Your task to perform on an android device: empty trash in google photos Image 0: 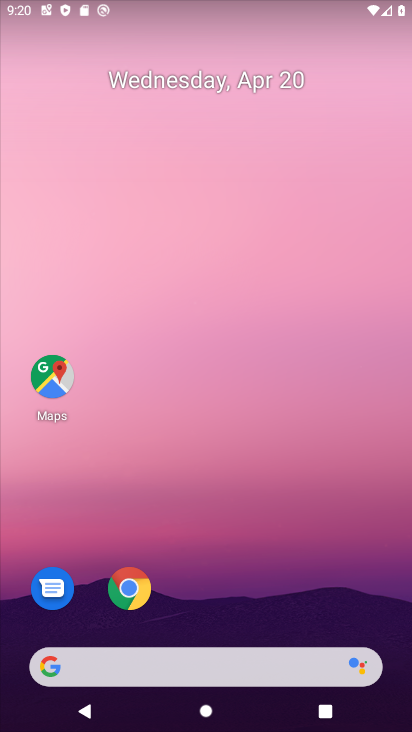
Step 0: drag from (219, 527) to (128, 198)
Your task to perform on an android device: empty trash in google photos Image 1: 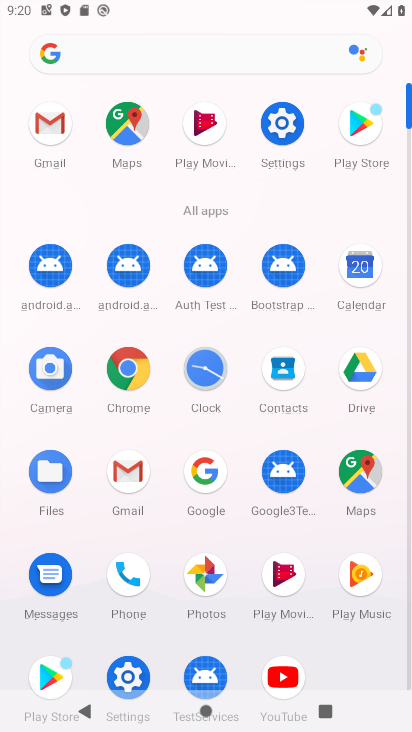
Step 1: click (207, 579)
Your task to perform on an android device: empty trash in google photos Image 2: 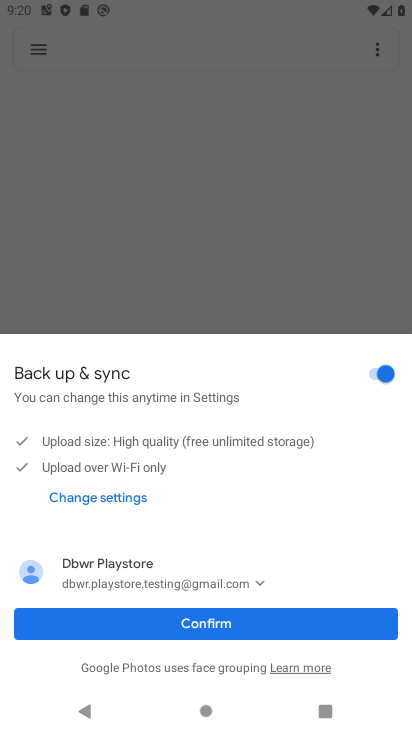
Step 2: click (197, 625)
Your task to perform on an android device: empty trash in google photos Image 3: 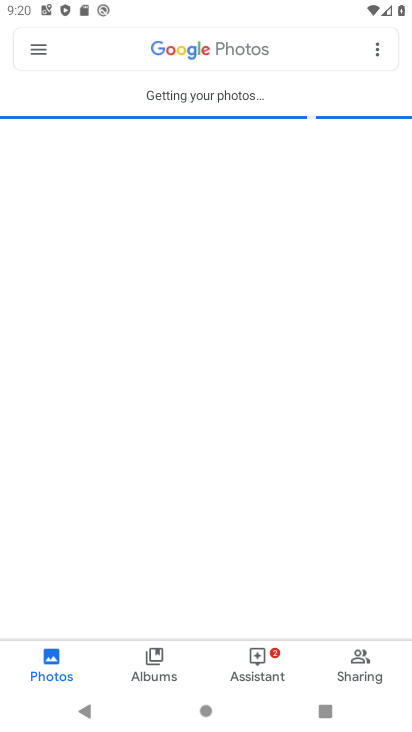
Step 3: click (38, 49)
Your task to perform on an android device: empty trash in google photos Image 4: 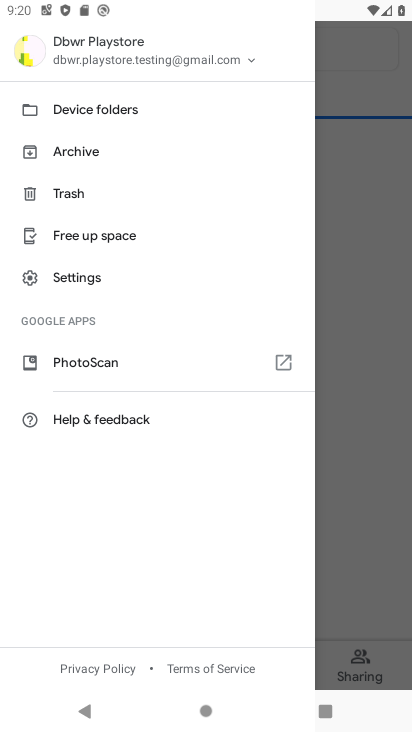
Step 4: click (47, 194)
Your task to perform on an android device: empty trash in google photos Image 5: 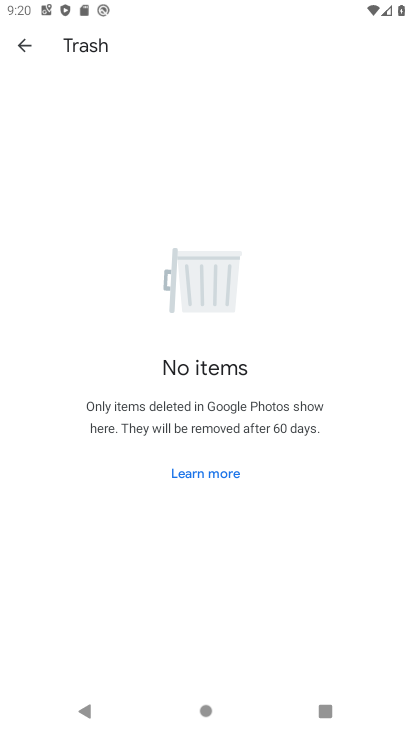
Step 5: task complete